Your task to perform on an android device: check storage Image 0: 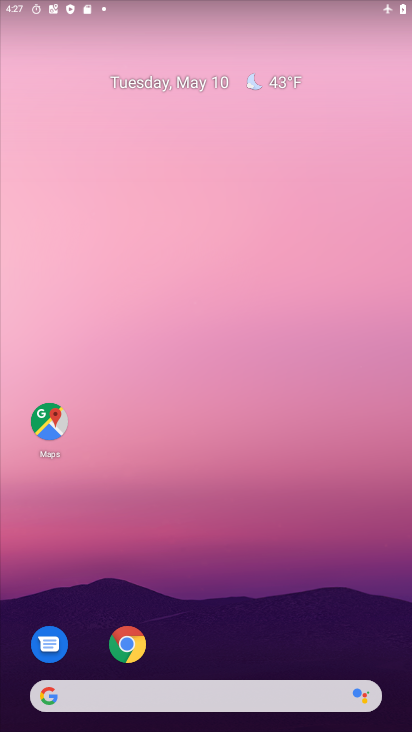
Step 0: drag from (220, 674) to (234, 169)
Your task to perform on an android device: check storage Image 1: 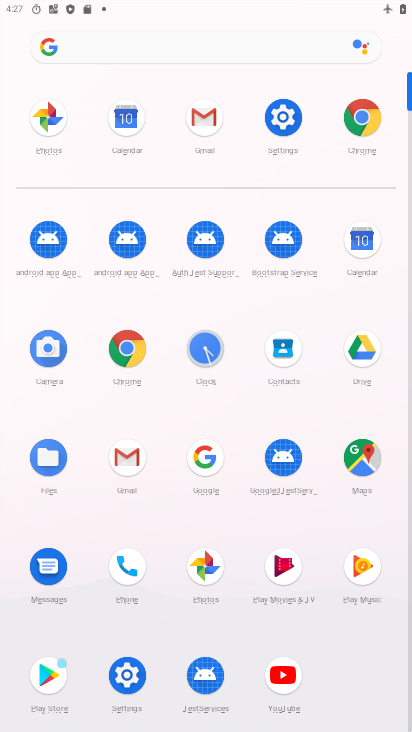
Step 1: click (288, 111)
Your task to perform on an android device: check storage Image 2: 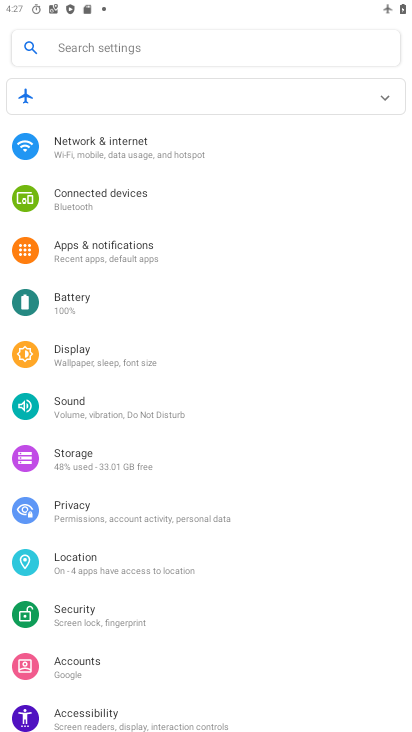
Step 2: click (127, 469)
Your task to perform on an android device: check storage Image 3: 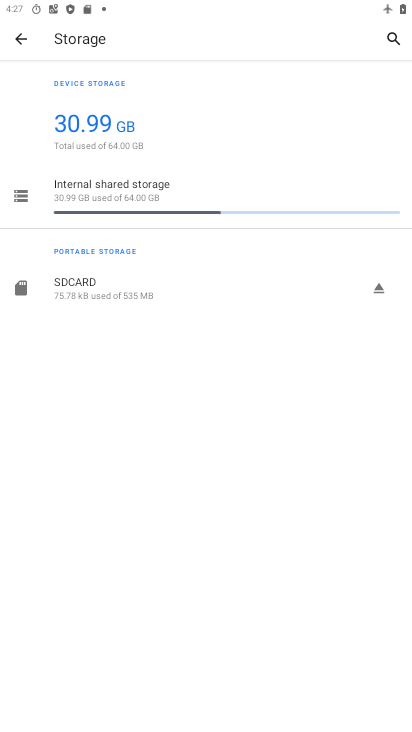
Step 3: task complete